Your task to perform on an android device: Open calendar and show me the second week of next month Image 0: 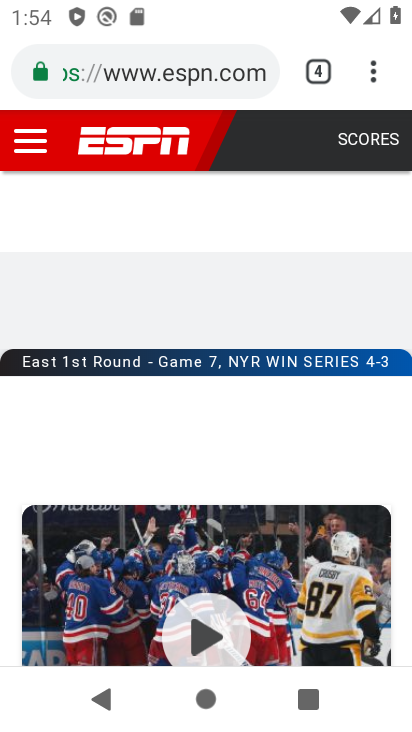
Step 0: press home button
Your task to perform on an android device: Open calendar and show me the second week of next month Image 1: 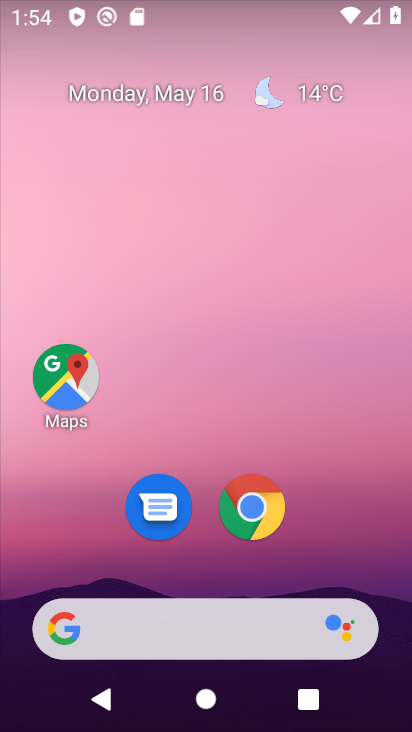
Step 1: drag from (251, 582) to (231, 119)
Your task to perform on an android device: Open calendar and show me the second week of next month Image 2: 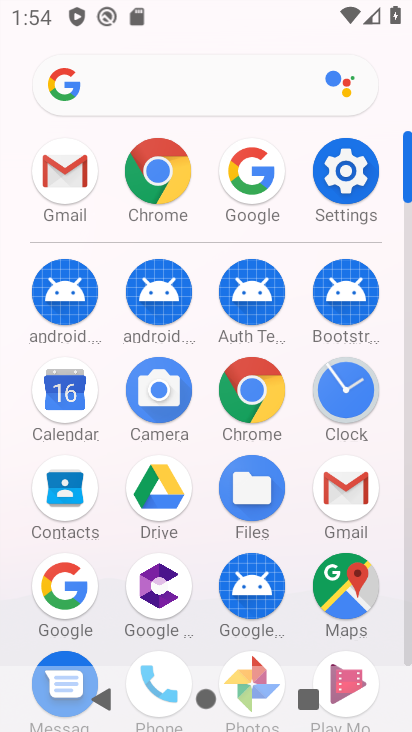
Step 2: click (69, 408)
Your task to perform on an android device: Open calendar and show me the second week of next month Image 3: 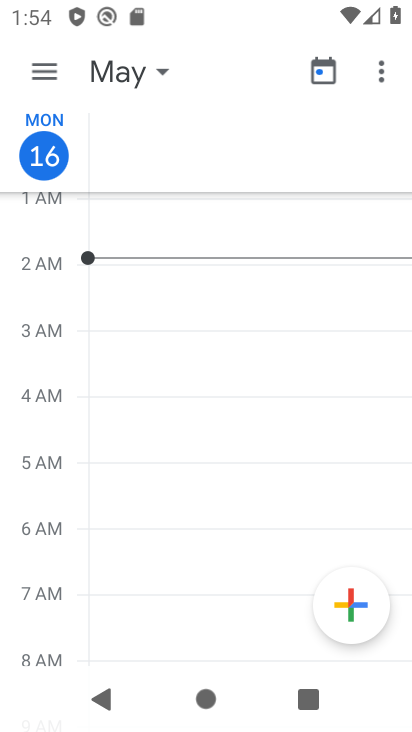
Step 3: click (35, 75)
Your task to perform on an android device: Open calendar and show me the second week of next month Image 4: 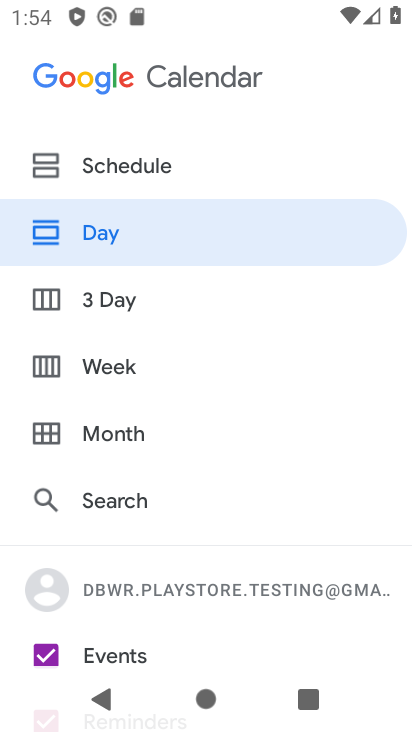
Step 4: click (130, 373)
Your task to perform on an android device: Open calendar and show me the second week of next month Image 5: 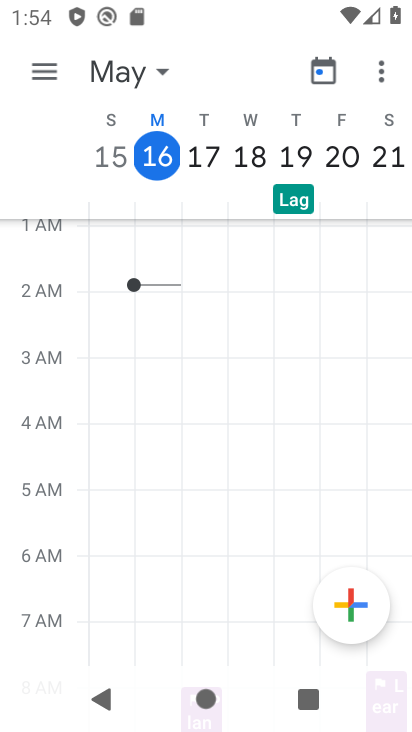
Step 5: click (133, 69)
Your task to perform on an android device: Open calendar and show me the second week of next month Image 6: 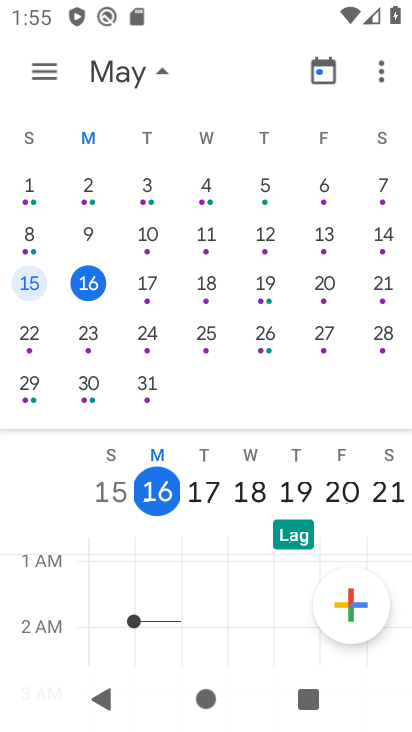
Step 6: drag from (326, 299) to (0, 319)
Your task to perform on an android device: Open calendar and show me the second week of next month Image 7: 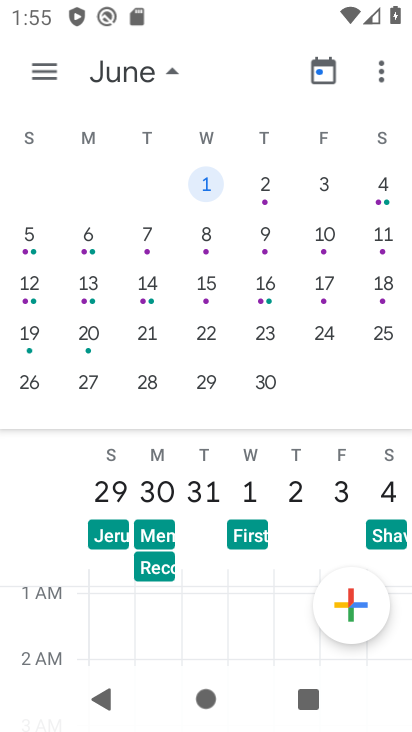
Step 7: click (23, 235)
Your task to perform on an android device: Open calendar and show me the second week of next month Image 8: 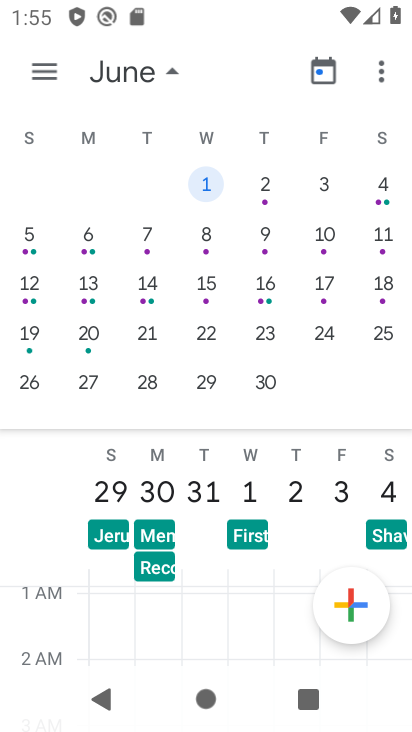
Step 8: click (157, 77)
Your task to perform on an android device: Open calendar and show me the second week of next month Image 9: 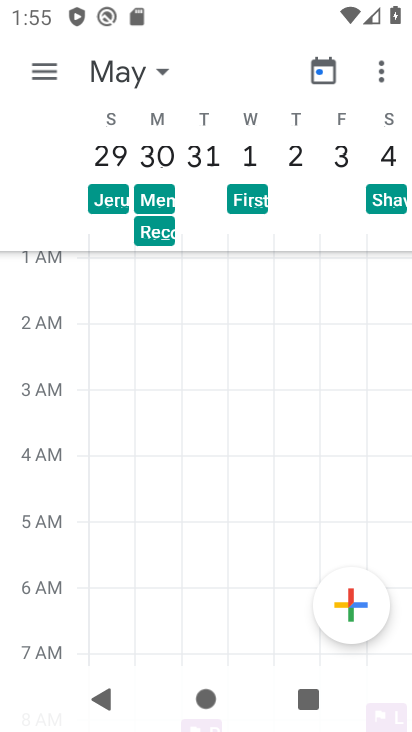
Step 9: click (157, 77)
Your task to perform on an android device: Open calendar and show me the second week of next month Image 10: 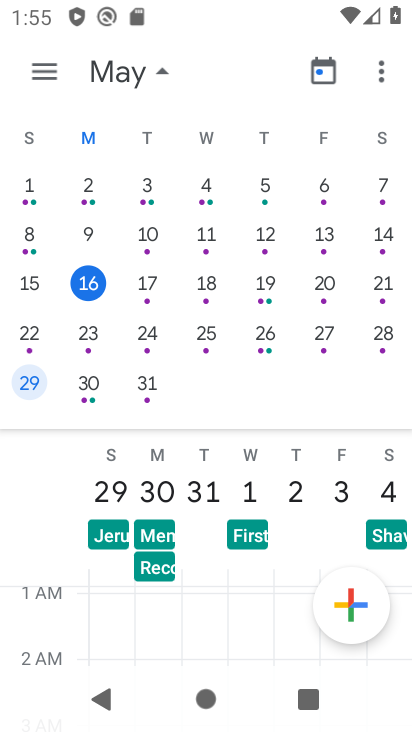
Step 10: drag from (277, 291) to (2, 283)
Your task to perform on an android device: Open calendar and show me the second week of next month Image 11: 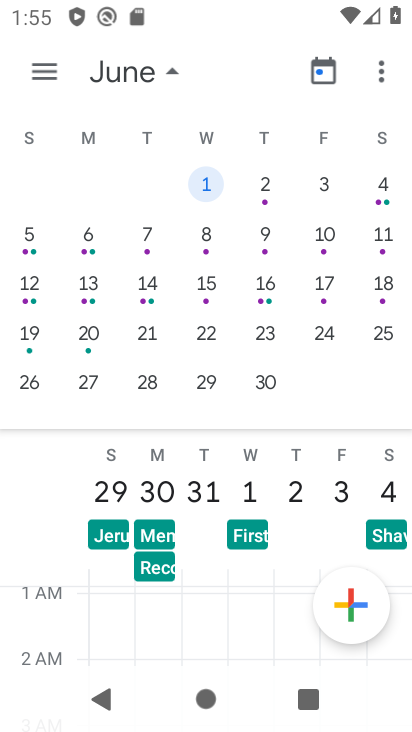
Step 11: click (22, 241)
Your task to perform on an android device: Open calendar and show me the second week of next month Image 12: 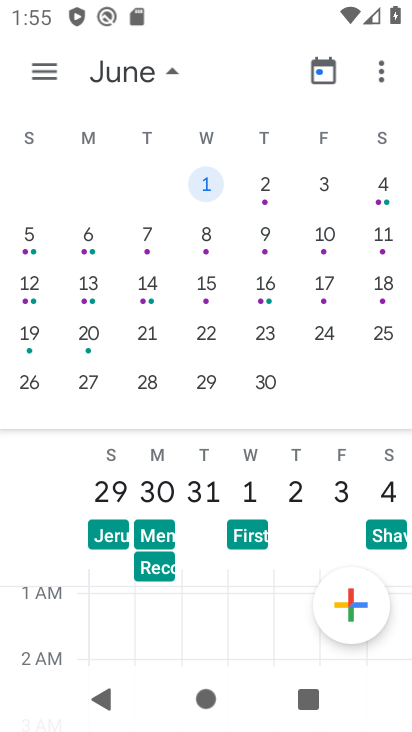
Step 12: click (30, 232)
Your task to perform on an android device: Open calendar and show me the second week of next month Image 13: 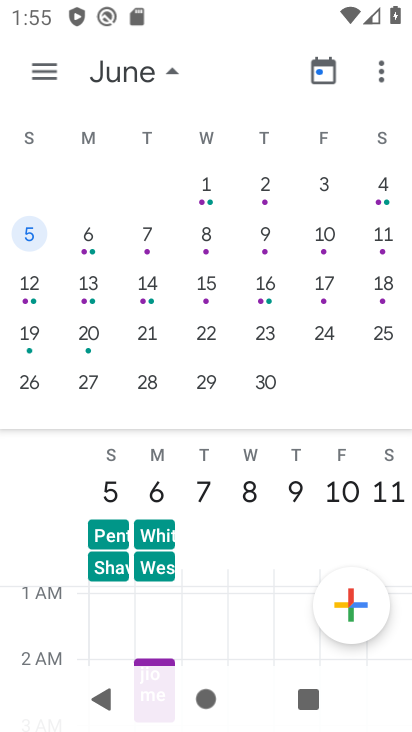
Step 13: click (175, 66)
Your task to perform on an android device: Open calendar and show me the second week of next month Image 14: 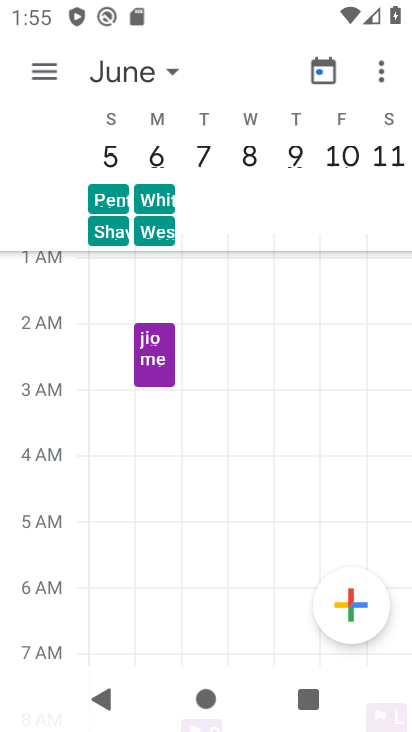
Step 14: task complete